Your task to perform on an android device: Open maps Image 0: 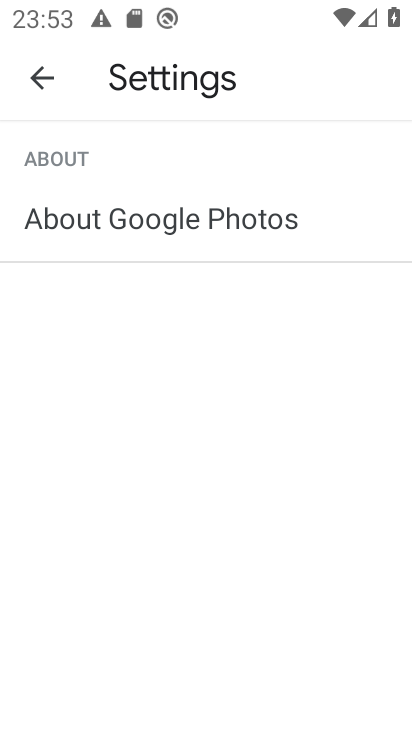
Step 0: press home button
Your task to perform on an android device: Open maps Image 1: 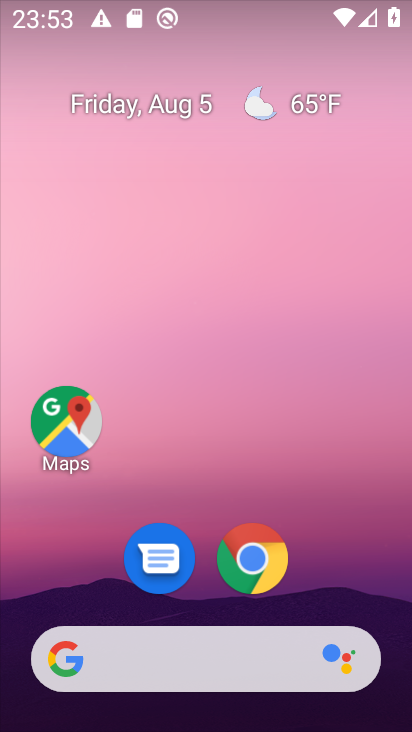
Step 1: drag from (350, 437) to (361, 186)
Your task to perform on an android device: Open maps Image 2: 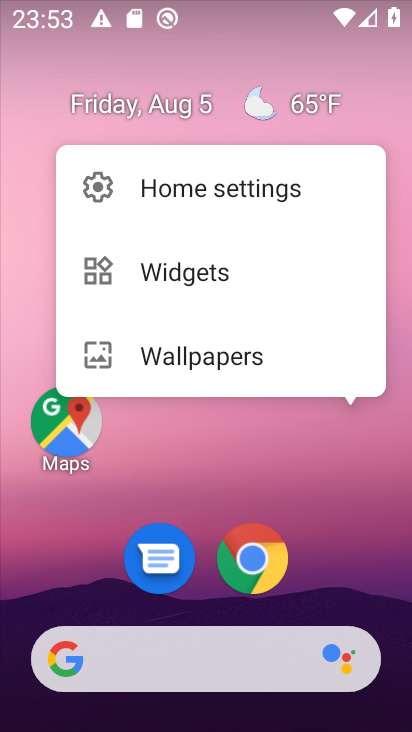
Step 2: click (276, 519)
Your task to perform on an android device: Open maps Image 3: 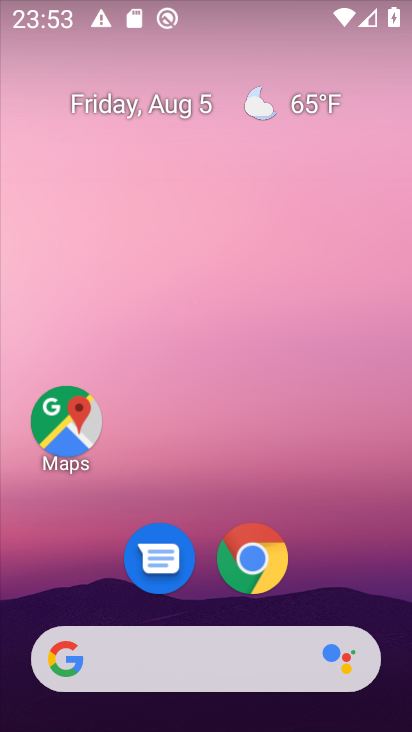
Step 3: drag from (360, 543) to (376, 192)
Your task to perform on an android device: Open maps Image 4: 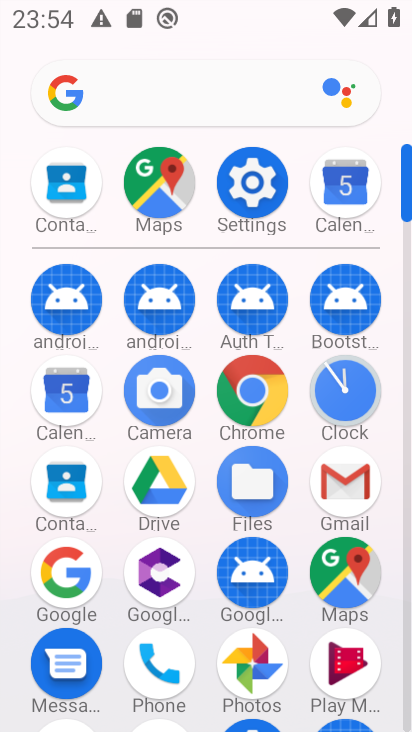
Step 4: click (337, 575)
Your task to perform on an android device: Open maps Image 5: 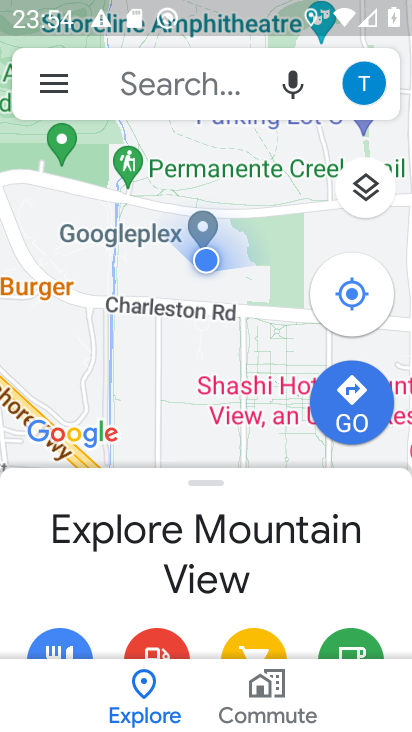
Step 5: task complete